Your task to perform on an android device: Open Google Chrome and open the bookmarks view Image 0: 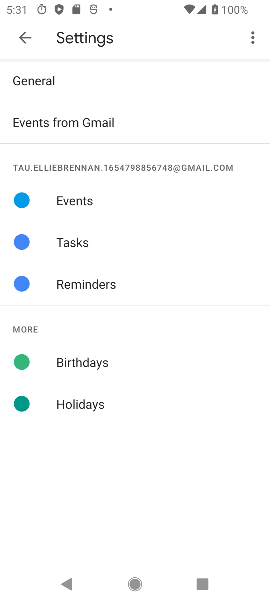
Step 0: click (10, 35)
Your task to perform on an android device: Open Google Chrome and open the bookmarks view Image 1: 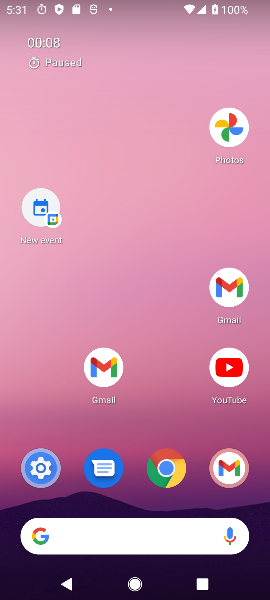
Step 1: drag from (169, 550) to (114, 207)
Your task to perform on an android device: Open Google Chrome and open the bookmarks view Image 2: 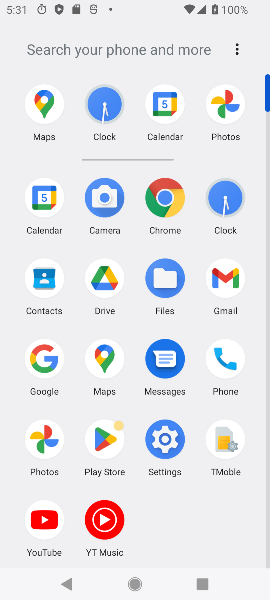
Step 2: drag from (143, 393) to (141, 245)
Your task to perform on an android device: Open Google Chrome and open the bookmarks view Image 3: 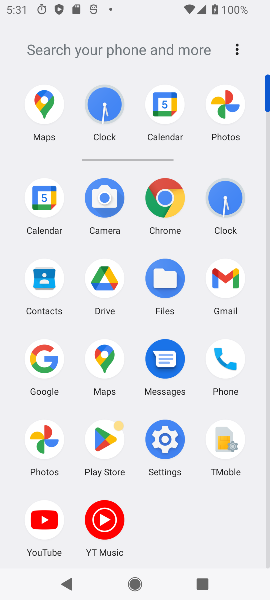
Step 3: click (159, 196)
Your task to perform on an android device: Open Google Chrome and open the bookmarks view Image 4: 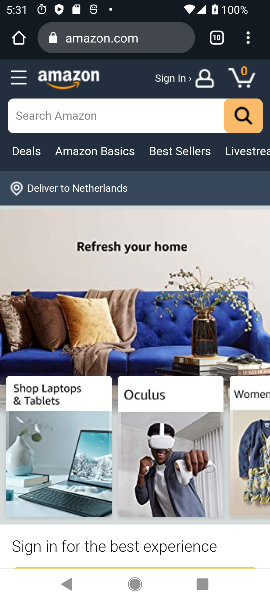
Step 4: click (249, 33)
Your task to perform on an android device: Open Google Chrome and open the bookmarks view Image 5: 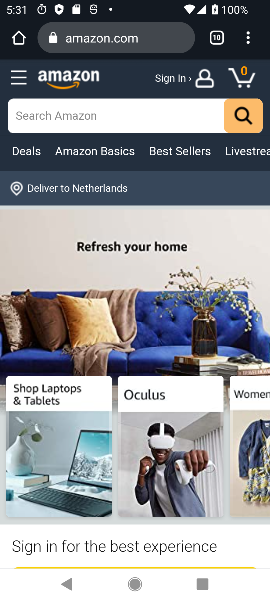
Step 5: drag from (250, 41) to (111, 284)
Your task to perform on an android device: Open Google Chrome and open the bookmarks view Image 6: 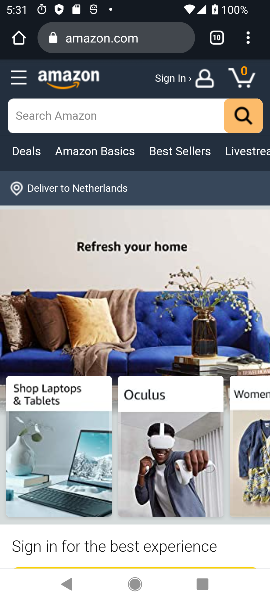
Step 6: click (111, 284)
Your task to perform on an android device: Open Google Chrome and open the bookmarks view Image 7: 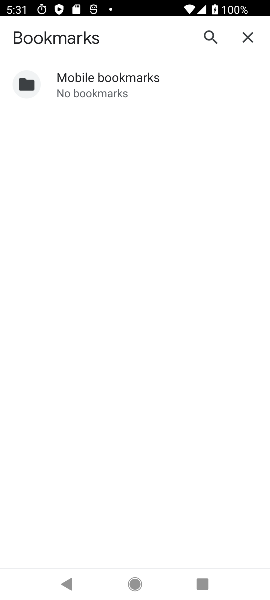
Step 7: task complete